Your task to perform on an android device: open app "Nova Launcher" (install if not already installed) Image 0: 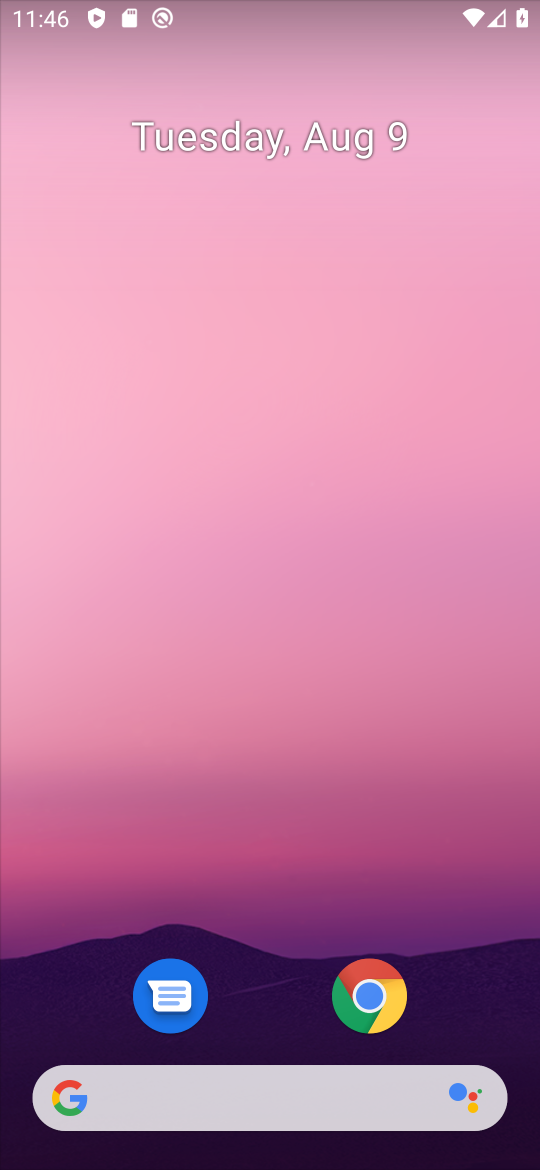
Step 0: drag from (207, 965) to (268, 339)
Your task to perform on an android device: open app "Nova Launcher" (install if not already installed) Image 1: 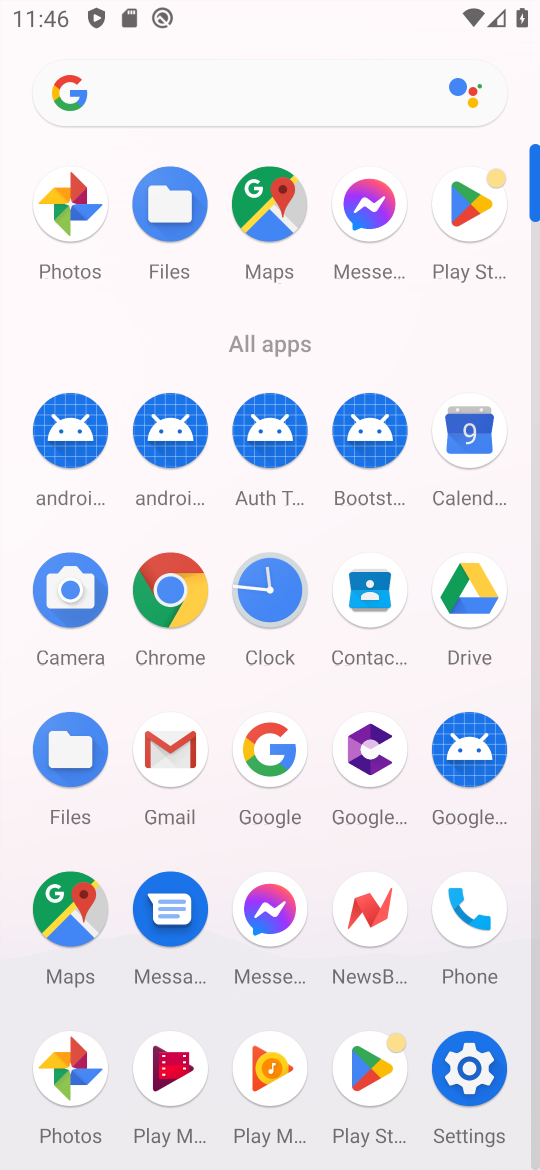
Step 1: click (465, 205)
Your task to perform on an android device: open app "Nova Launcher" (install if not already installed) Image 2: 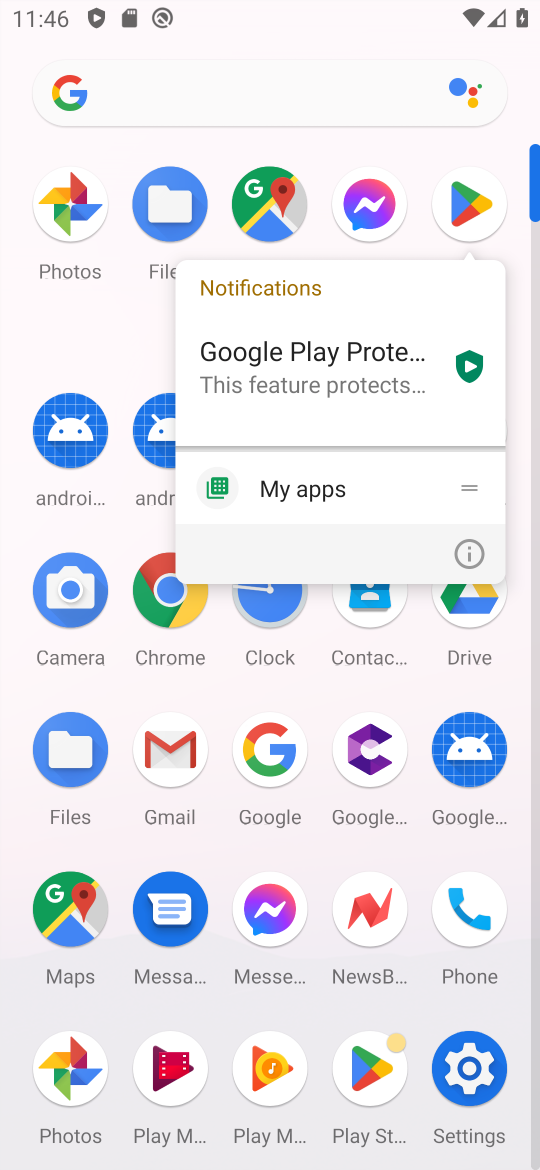
Step 2: click (465, 202)
Your task to perform on an android device: open app "Nova Launcher" (install if not already installed) Image 3: 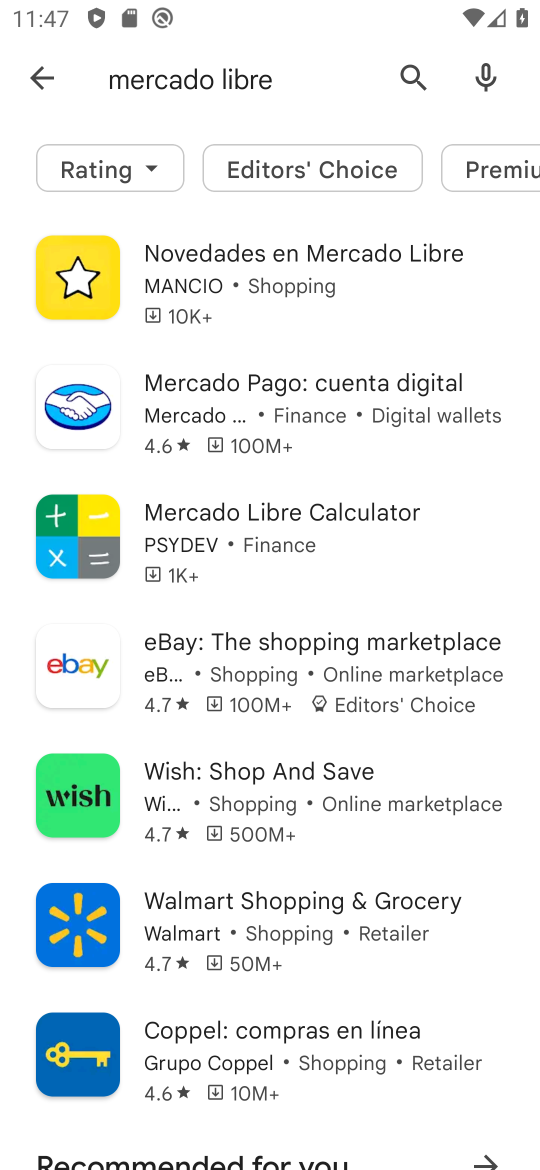
Step 3: click (39, 84)
Your task to perform on an android device: open app "Nova Launcher" (install if not already installed) Image 4: 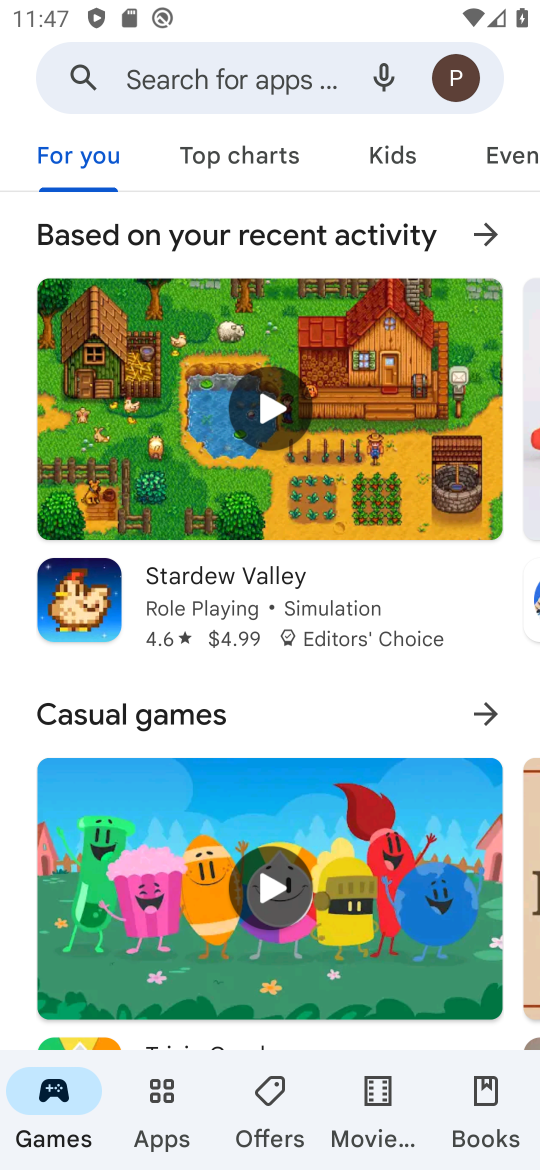
Step 4: click (197, 87)
Your task to perform on an android device: open app "Nova Launcher" (install if not already installed) Image 5: 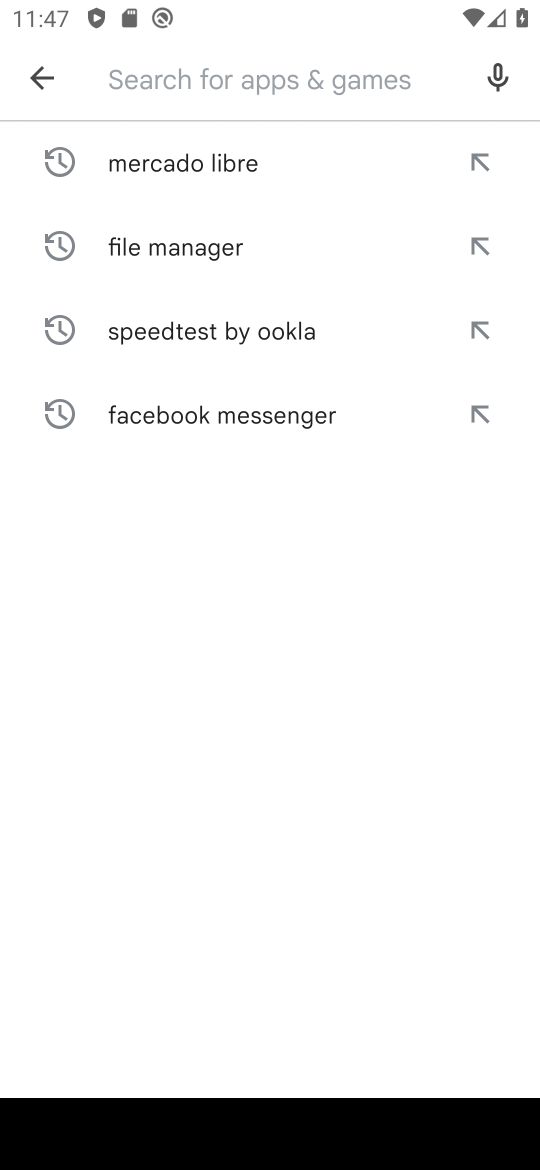
Step 5: type "Nova Launcher"
Your task to perform on an android device: open app "Nova Launcher" (install if not already installed) Image 6: 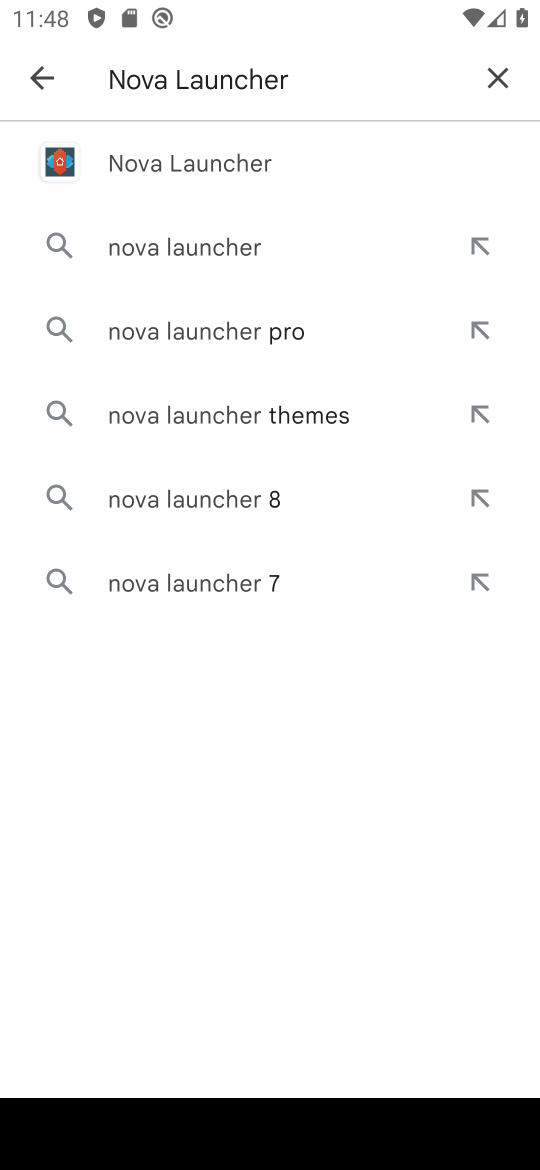
Step 6: click (263, 151)
Your task to perform on an android device: open app "Nova Launcher" (install if not already installed) Image 7: 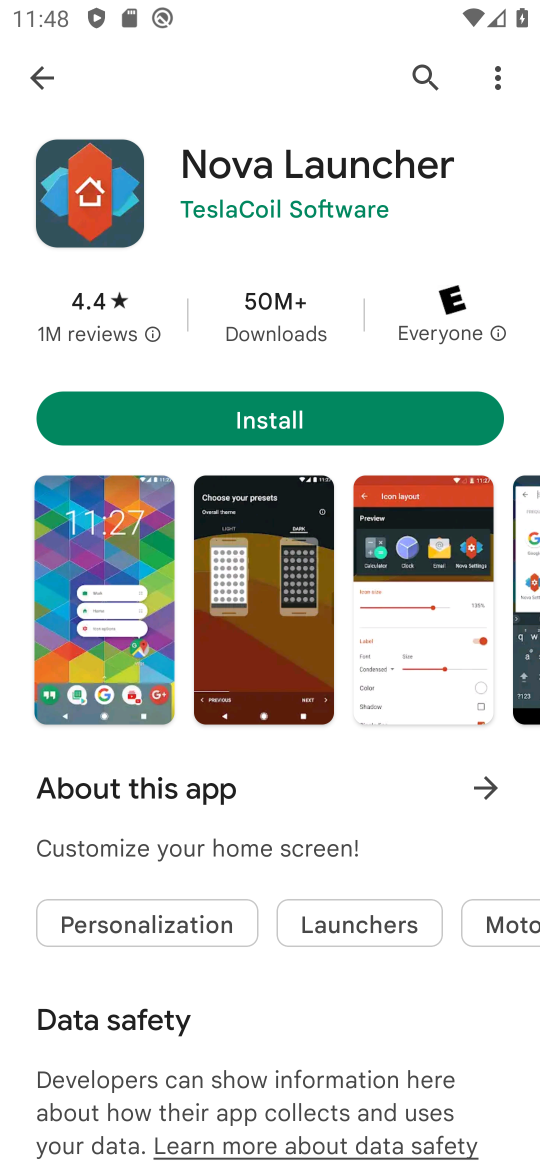
Step 7: click (232, 407)
Your task to perform on an android device: open app "Nova Launcher" (install if not already installed) Image 8: 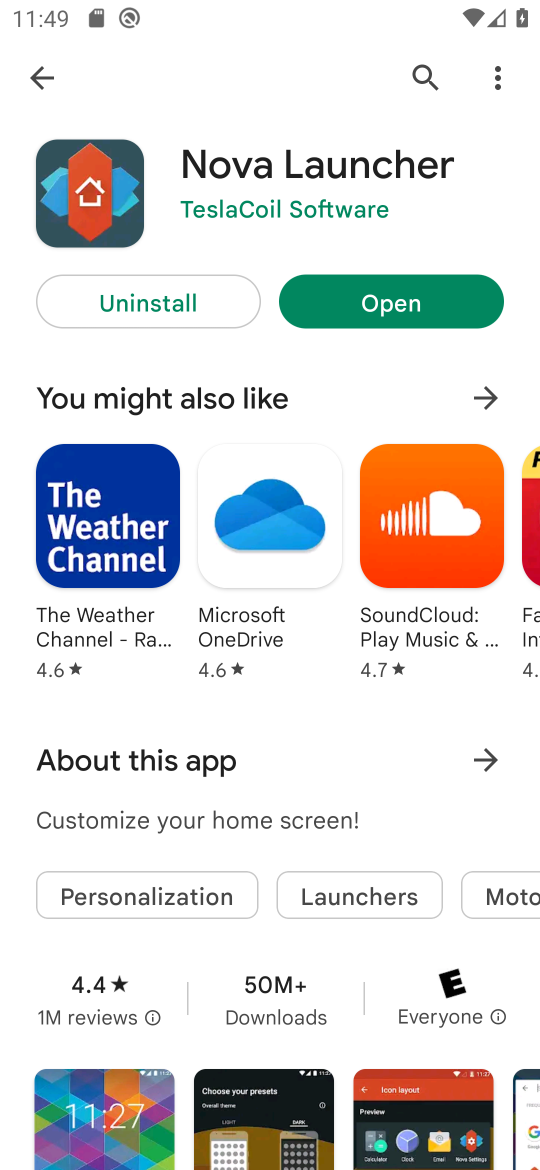
Step 8: click (373, 298)
Your task to perform on an android device: open app "Nova Launcher" (install if not already installed) Image 9: 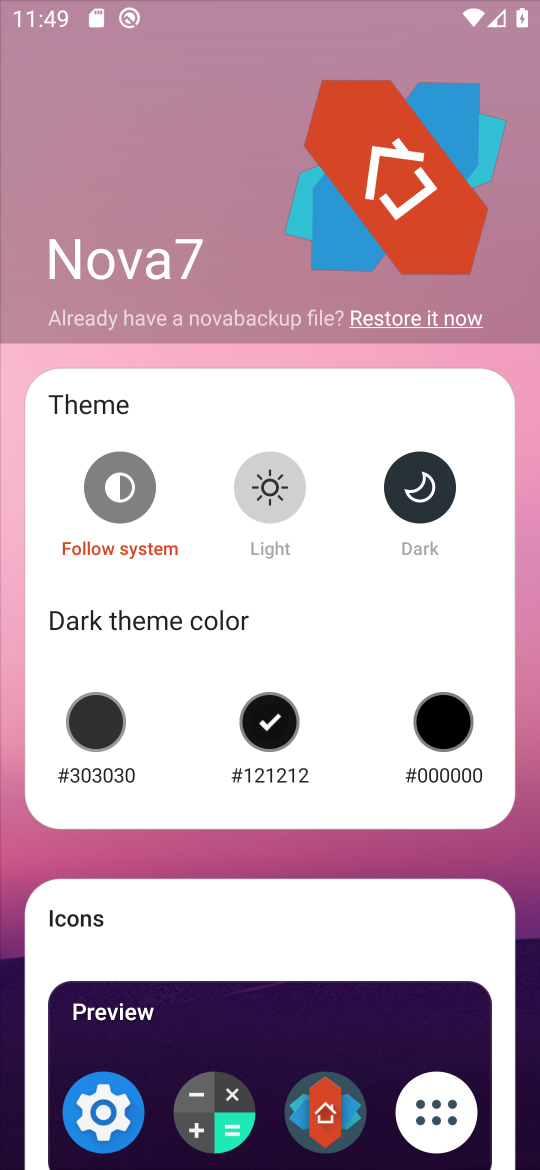
Step 9: task complete